Your task to perform on an android device: snooze an email in the gmail app Image 0: 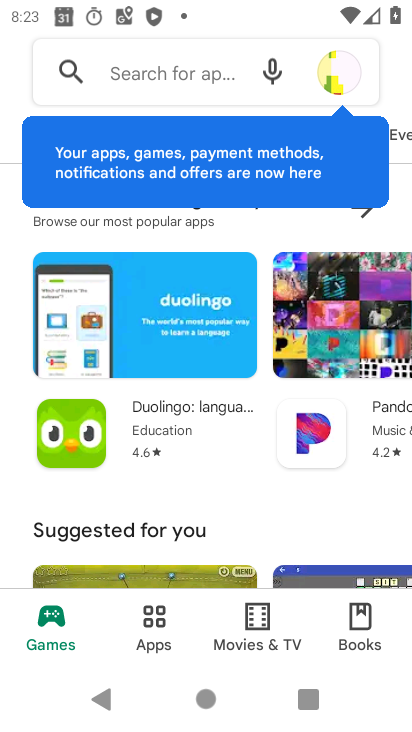
Step 0: press home button
Your task to perform on an android device: snooze an email in the gmail app Image 1: 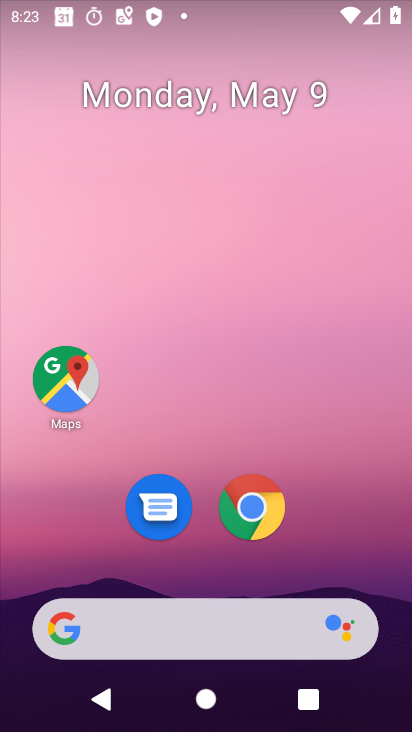
Step 1: drag from (265, 683) to (250, 98)
Your task to perform on an android device: snooze an email in the gmail app Image 2: 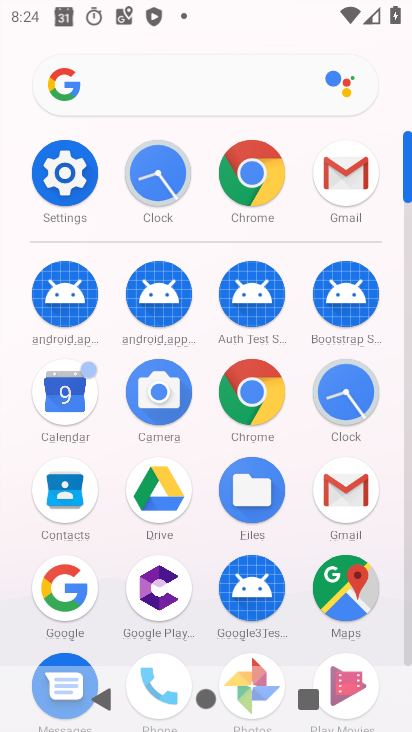
Step 2: click (55, 190)
Your task to perform on an android device: snooze an email in the gmail app Image 3: 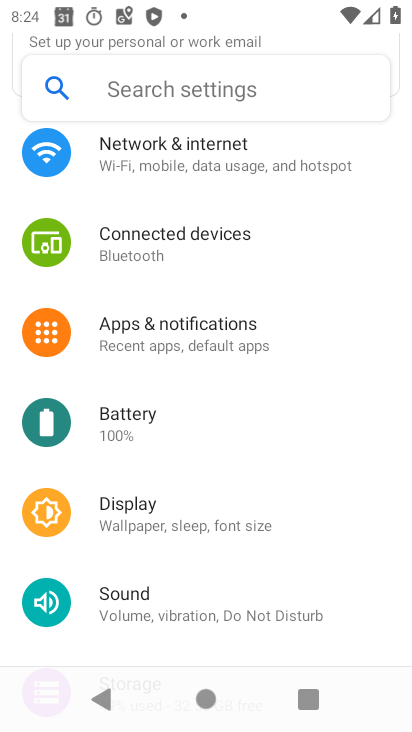
Step 3: press home button
Your task to perform on an android device: snooze an email in the gmail app Image 4: 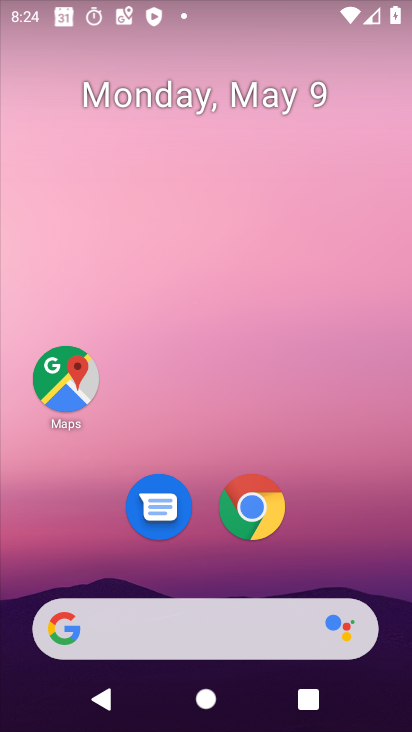
Step 4: drag from (333, 668) to (311, 195)
Your task to perform on an android device: snooze an email in the gmail app Image 5: 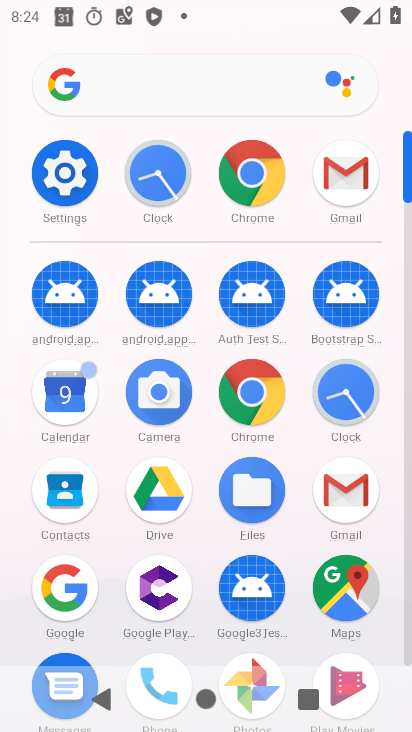
Step 5: click (345, 165)
Your task to perform on an android device: snooze an email in the gmail app Image 6: 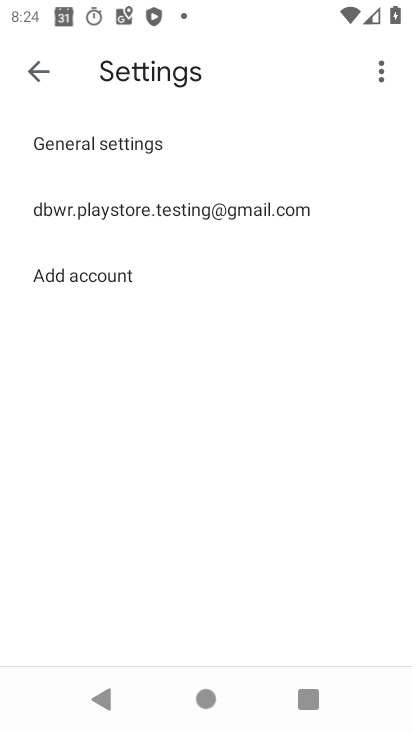
Step 6: click (167, 206)
Your task to perform on an android device: snooze an email in the gmail app Image 7: 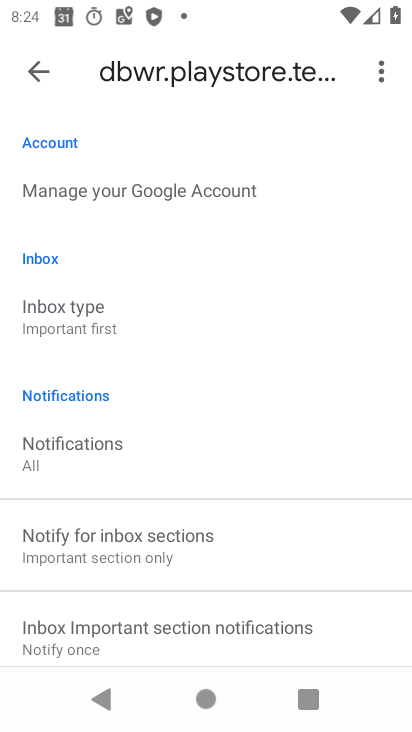
Step 7: click (30, 76)
Your task to perform on an android device: snooze an email in the gmail app Image 8: 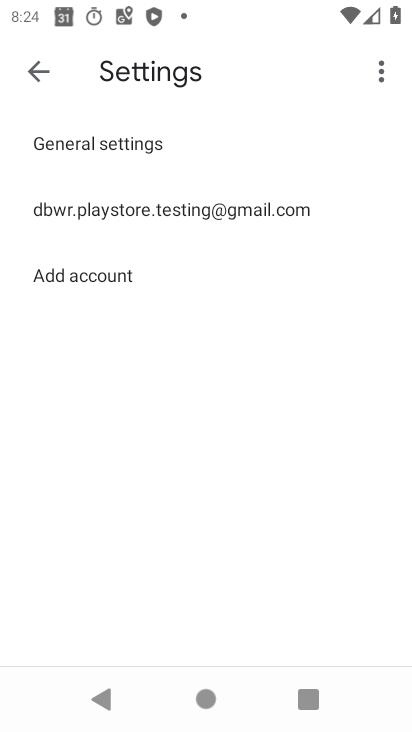
Step 8: click (28, 77)
Your task to perform on an android device: snooze an email in the gmail app Image 9: 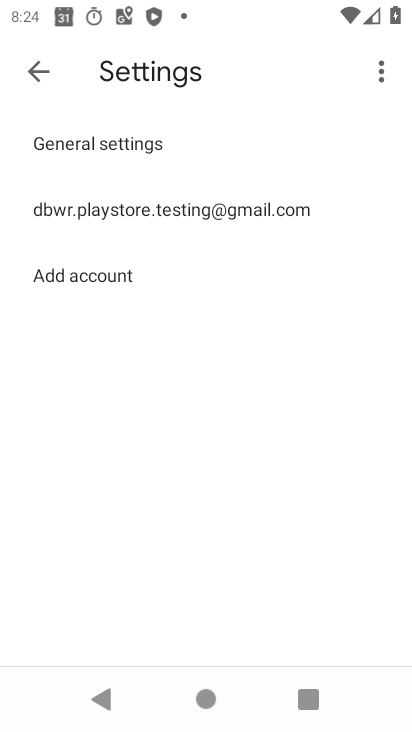
Step 9: click (25, 72)
Your task to perform on an android device: snooze an email in the gmail app Image 10: 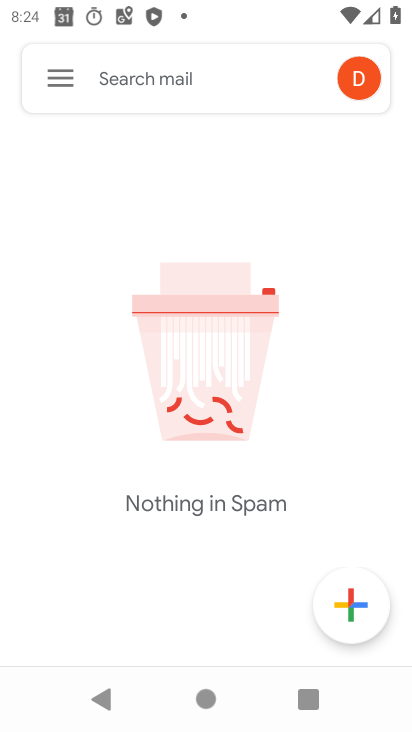
Step 10: click (37, 84)
Your task to perform on an android device: snooze an email in the gmail app Image 11: 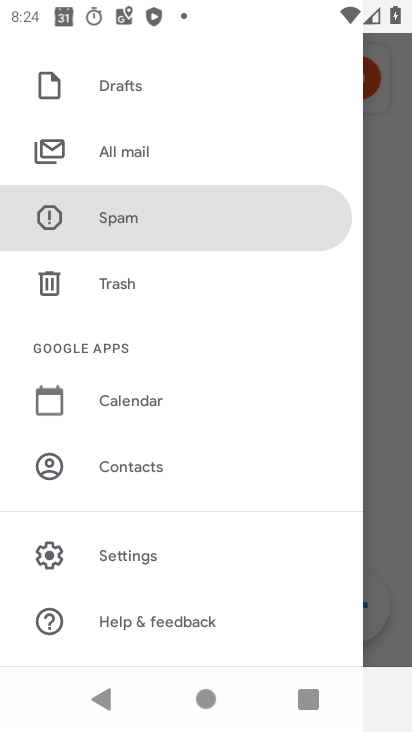
Step 11: drag from (163, 160) to (253, 559)
Your task to perform on an android device: snooze an email in the gmail app Image 12: 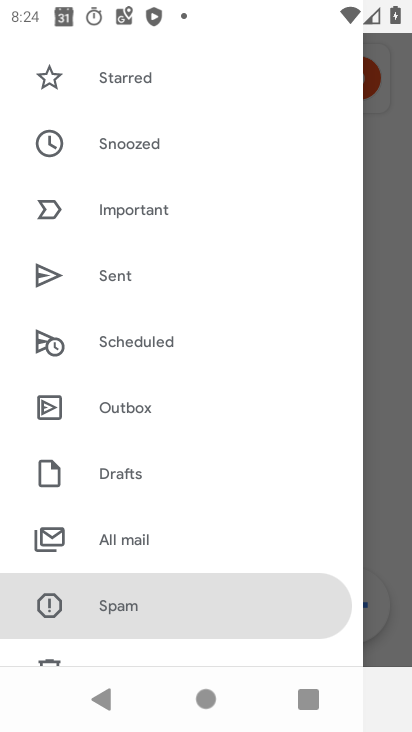
Step 12: click (150, 141)
Your task to perform on an android device: snooze an email in the gmail app Image 13: 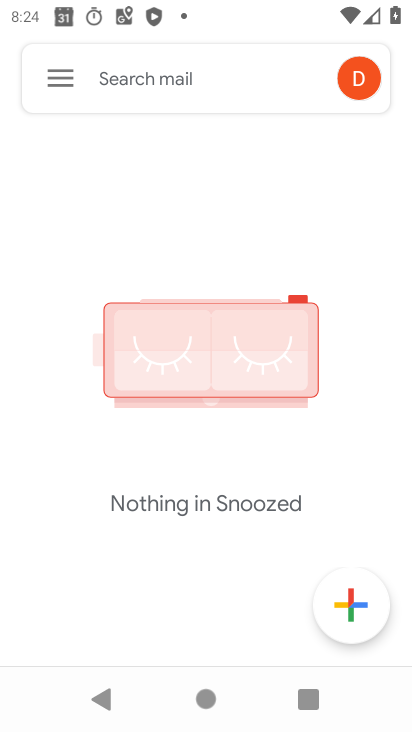
Step 13: task complete